Your task to perform on an android device: Open Android settings Image 0: 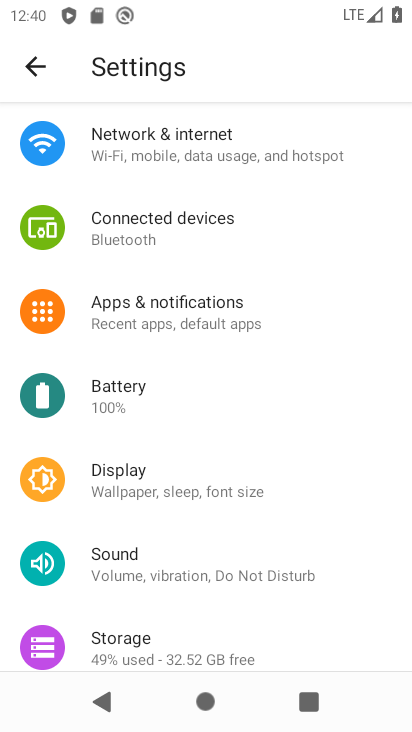
Step 0: drag from (197, 559) to (232, 3)
Your task to perform on an android device: Open Android settings Image 1: 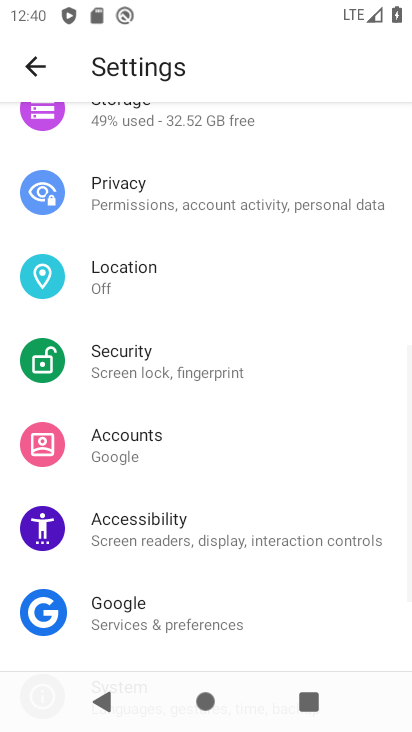
Step 1: drag from (216, 518) to (213, 66)
Your task to perform on an android device: Open Android settings Image 2: 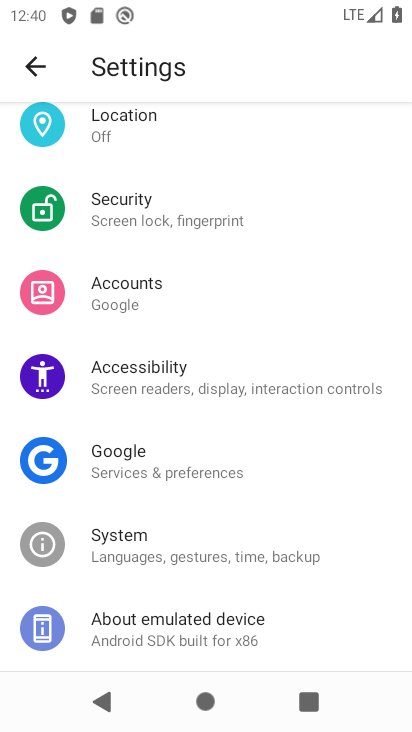
Step 2: click (184, 625)
Your task to perform on an android device: Open Android settings Image 3: 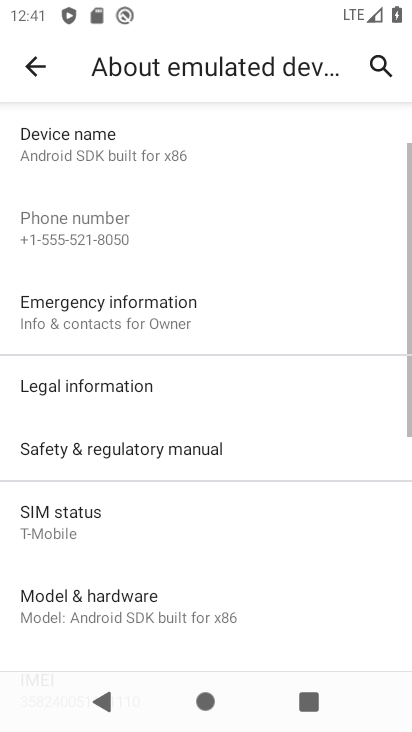
Step 3: task complete